Your task to perform on an android device: Search for asus rog on amazon, select the first entry, and add it to the cart. Image 0: 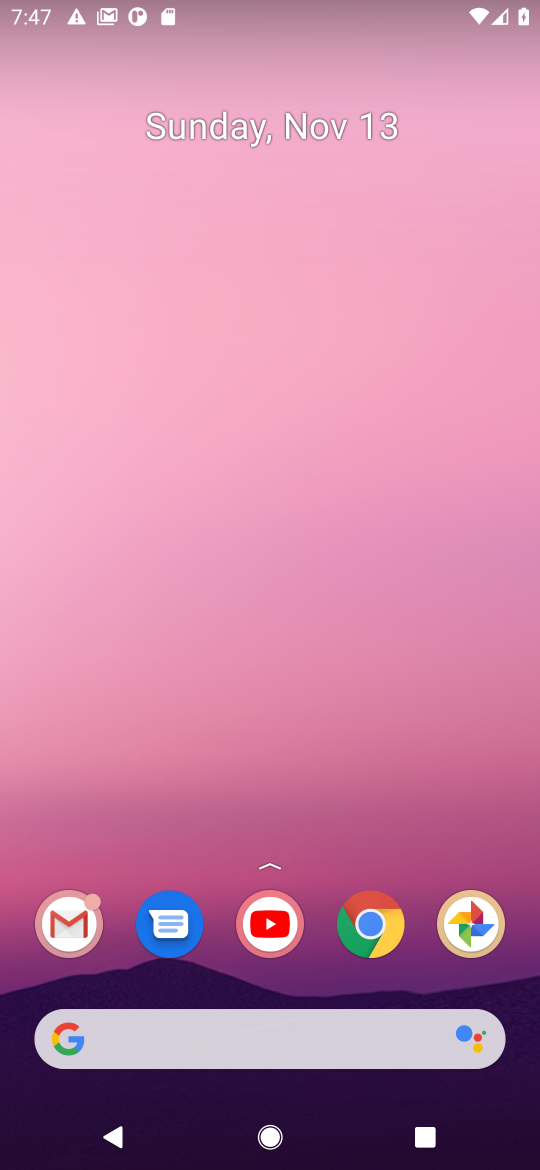
Step 0: click (380, 937)
Your task to perform on an android device: Search for asus rog on amazon, select the first entry, and add it to the cart. Image 1: 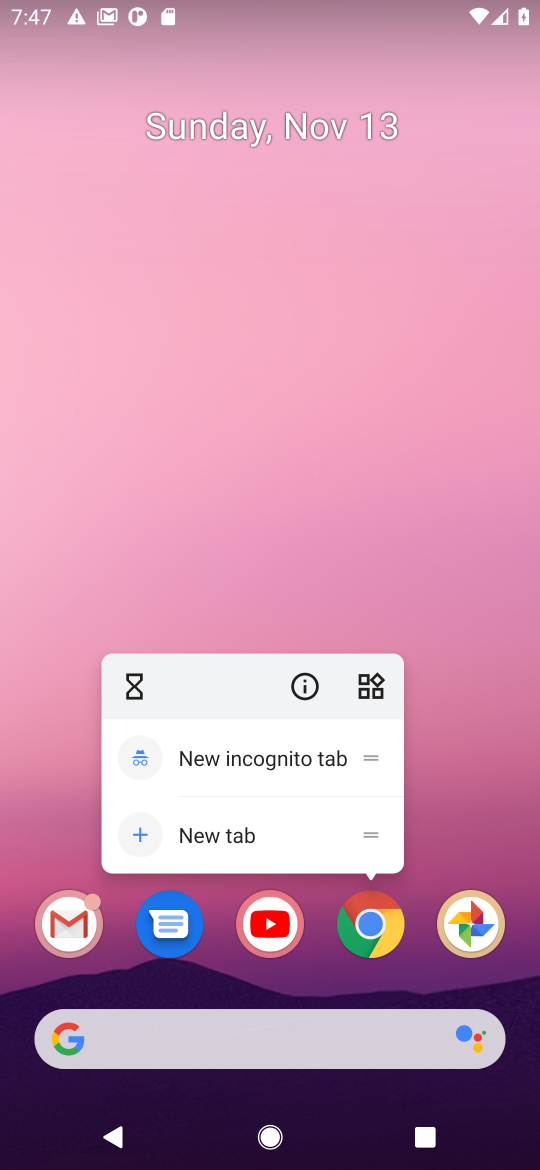
Step 1: click (372, 934)
Your task to perform on an android device: Search for asus rog on amazon, select the first entry, and add it to the cart. Image 2: 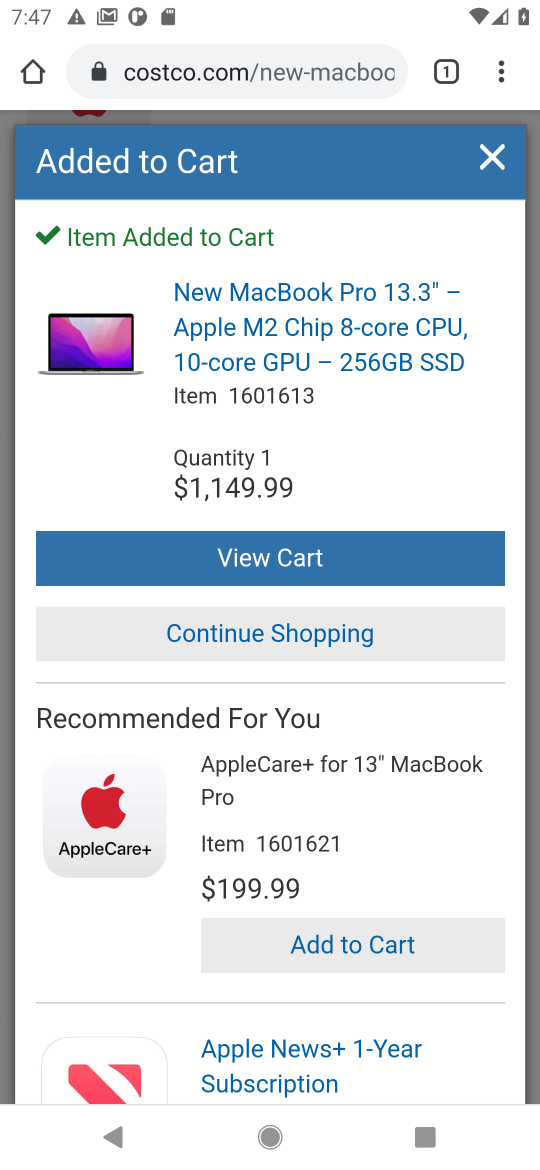
Step 2: click (367, 71)
Your task to perform on an android device: Search for asus rog on amazon, select the first entry, and add it to the cart. Image 3: 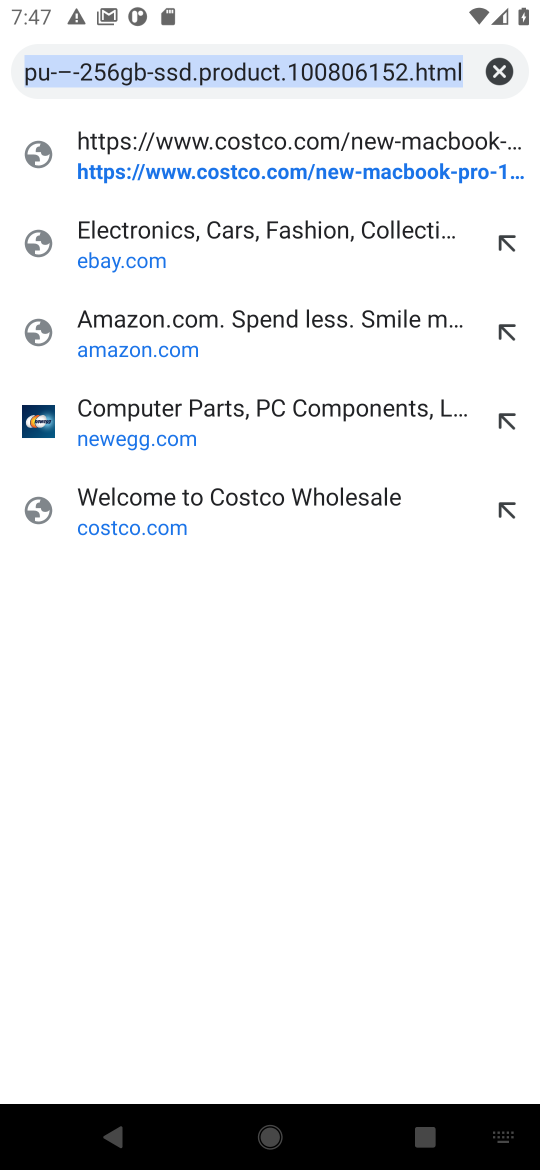
Step 3: click (178, 359)
Your task to perform on an android device: Search for asus rog on amazon, select the first entry, and add it to the cart. Image 4: 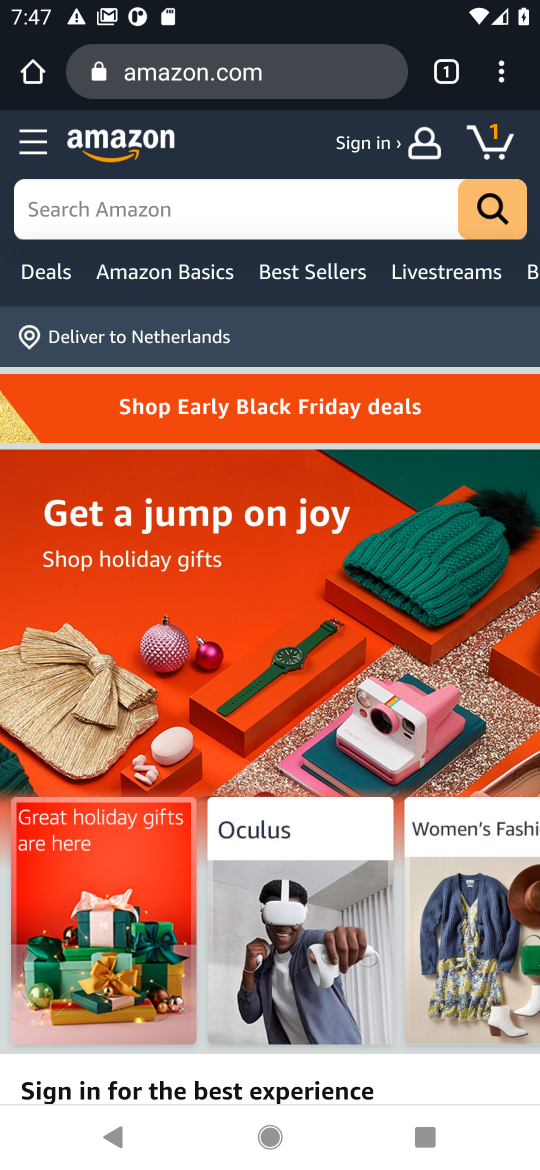
Step 4: click (175, 214)
Your task to perform on an android device: Search for asus rog on amazon, select the first entry, and add it to the cart. Image 5: 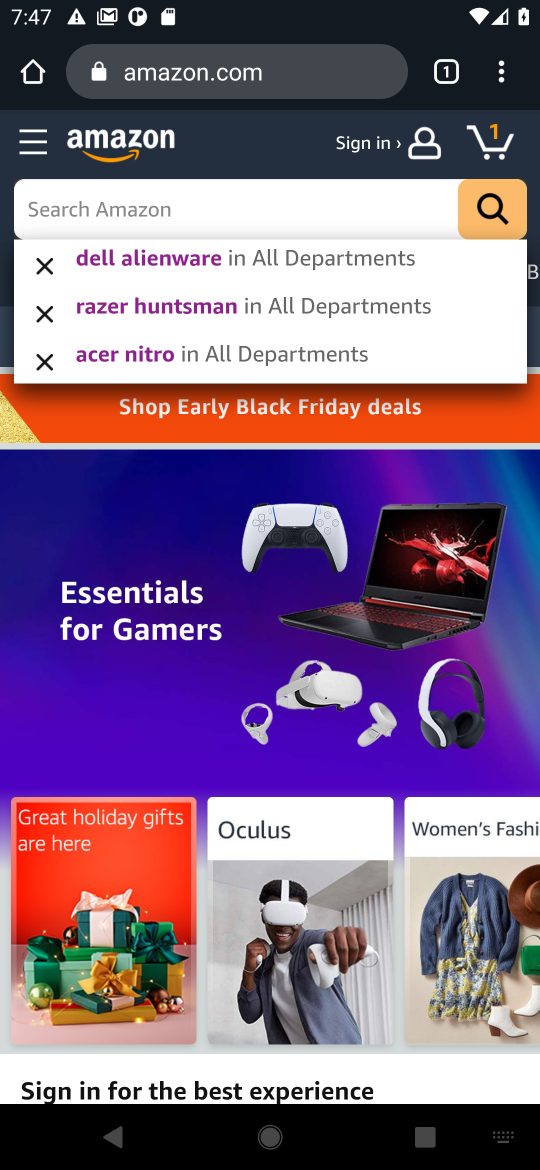
Step 5: type "asus rog"
Your task to perform on an android device: Search for asus rog on amazon, select the first entry, and add it to the cart. Image 6: 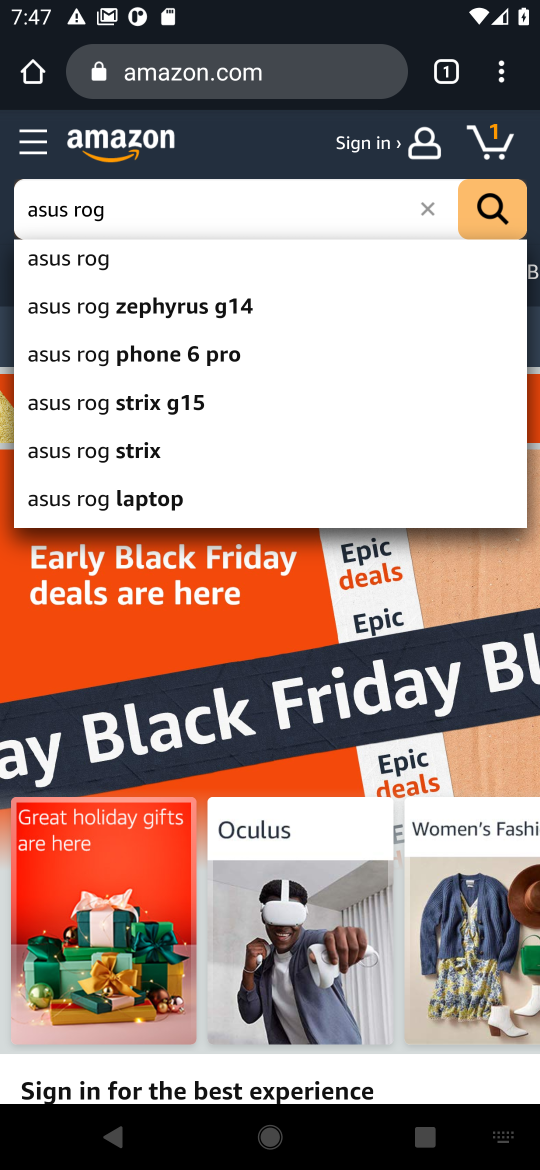
Step 6: click (100, 267)
Your task to perform on an android device: Search for asus rog on amazon, select the first entry, and add it to the cart. Image 7: 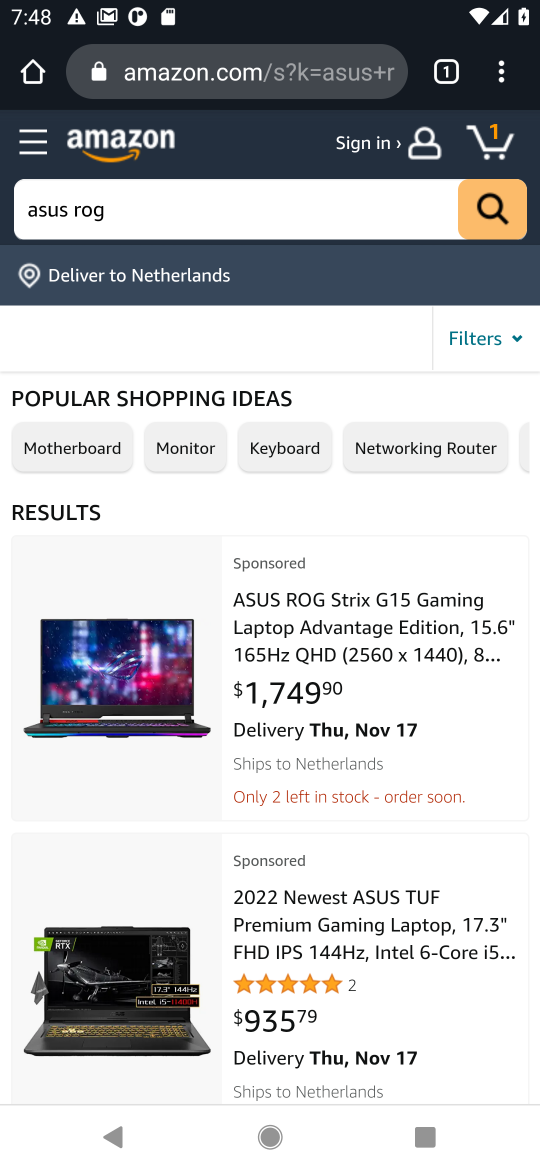
Step 7: click (166, 670)
Your task to perform on an android device: Search for asus rog on amazon, select the first entry, and add it to the cart. Image 8: 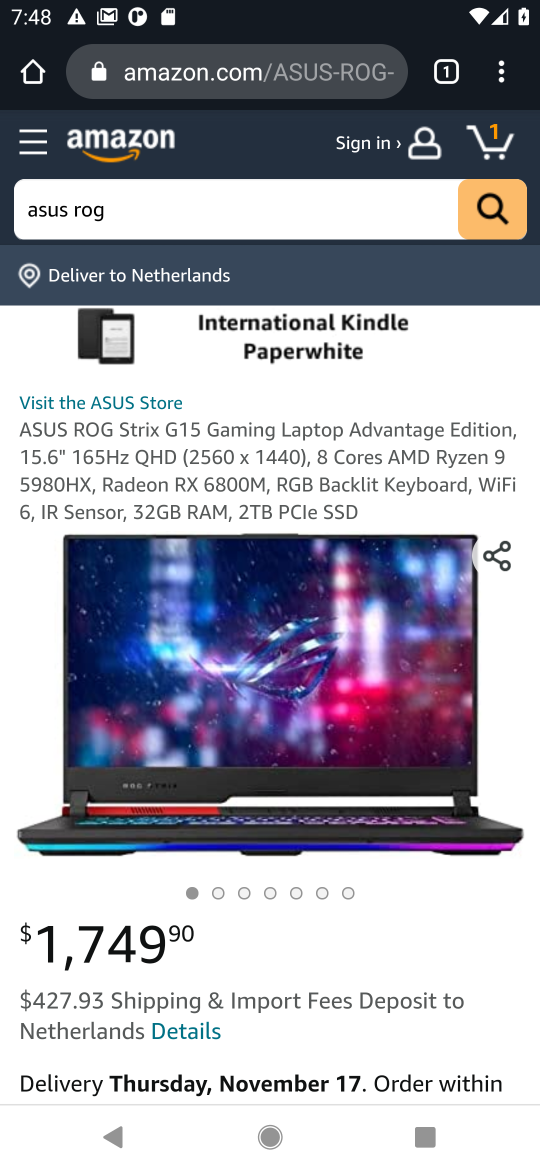
Step 8: drag from (323, 935) to (323, 562)
Your task to perform on an android device: Search for asus rog on amazon, select the first entry, and add it to the cart. Image 9: 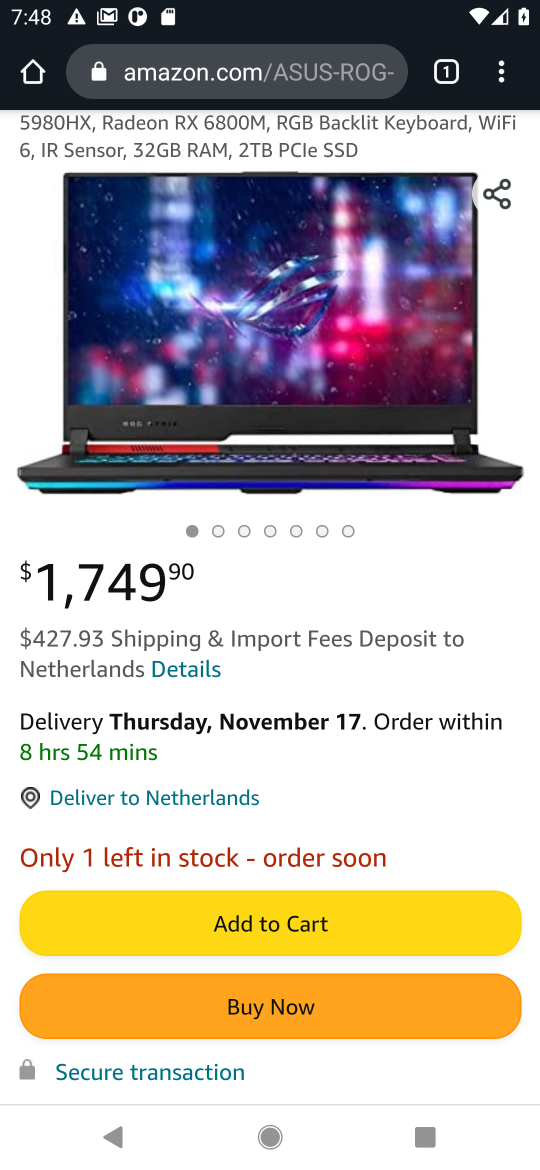
Step 9: click (323, 937)
Your task to perform on an android device: Search for asus rog on amazon, select the first entry, and add it to the cart. Image 10: 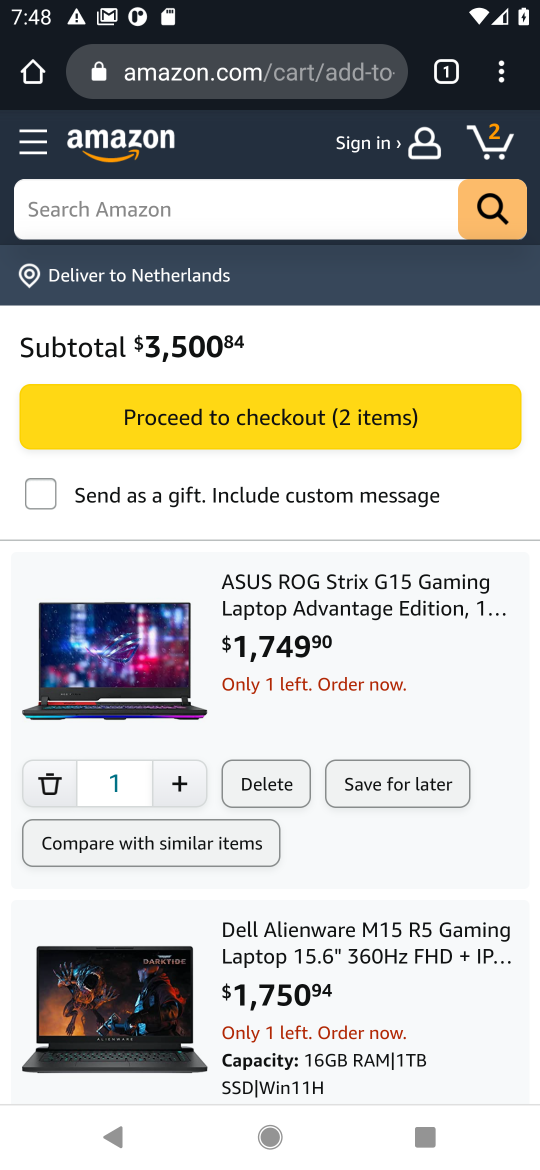
Step 10: task complete